Your task to perform on an android device: turn off airplane mode Image 0: 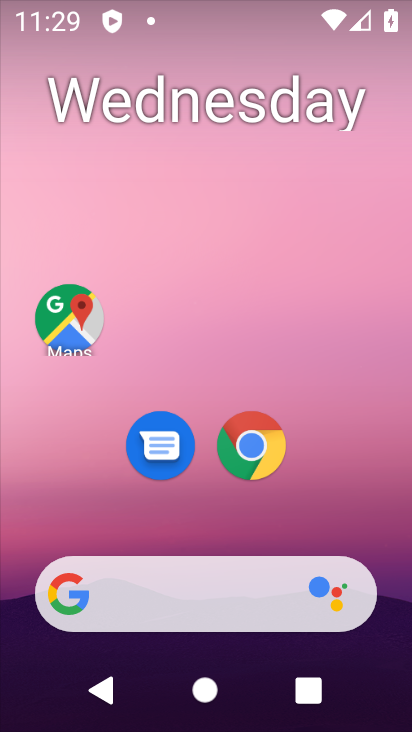
Step 0: drag from (280, 491) to (189, 189)
Your task to perform on an android device: turn off airplane mode Image 1: 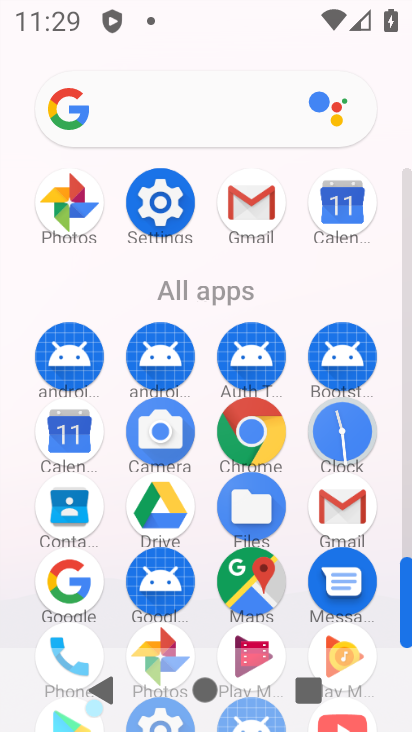
Step 1: click (175, 196)
Your task to perform on an android device: turn off airplane mode Image 2: 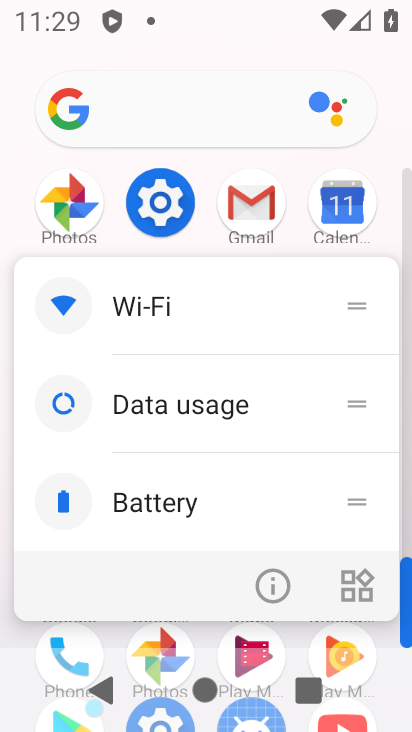
Step 2: click (155, 207)
Your task to perform on an android device: turn off airplane mode Image 3: 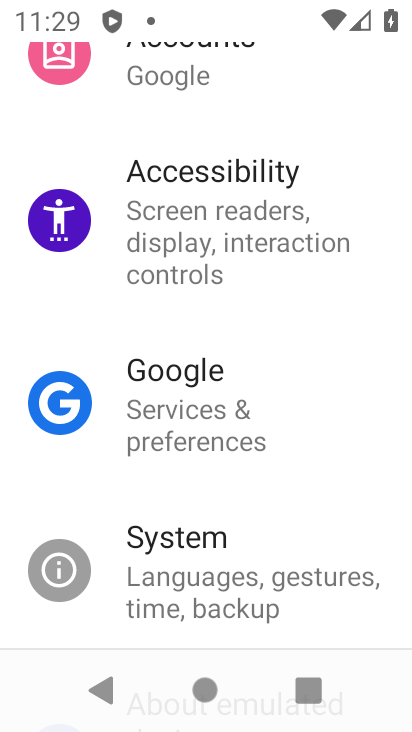
Step 3: drag from (303, 140) to (363, 486)
Your task to perform on an android device: turn off airplane mode Image 4: 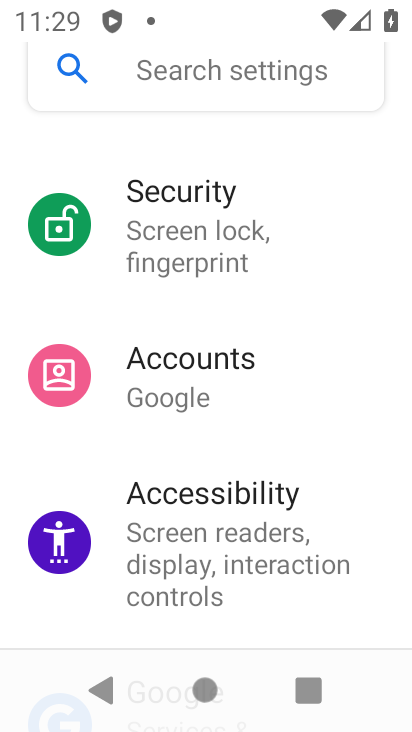
Step 4: drag from (318, 299) to (357, 564)
Your task to perform on an android device: turn off airplane mode Image 5: 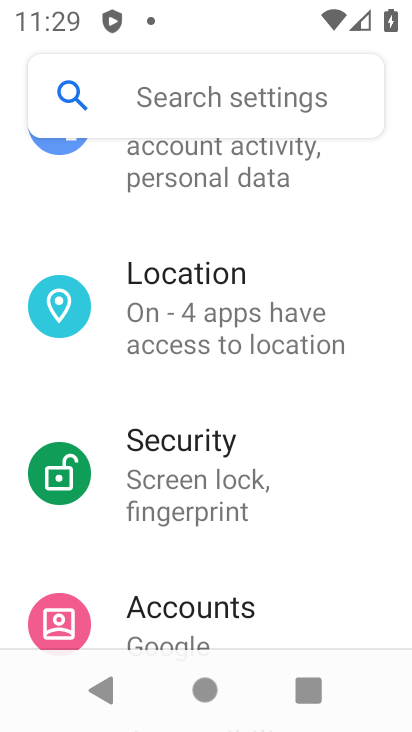
Step 5: drag from (312, 288) to (397, 535)
Your task to perform on an android device: turn off airplane mode Image 6: 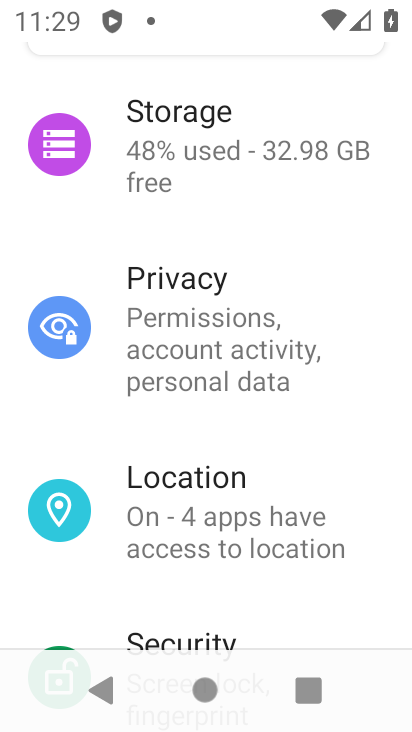
Step 6: drag from (295, 321) to (365, 526)
Your task to perform on an android device: turn off airplane mode Image 7: 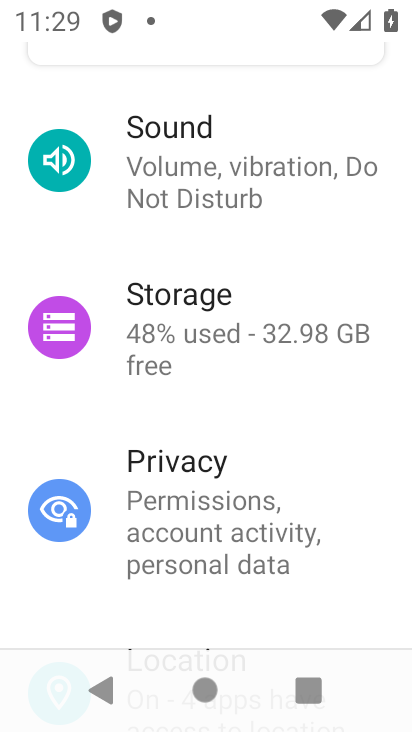
Step 7: drag from (260, 237) to (390, 548)
Your task to perform on an android device: turn off airplane mode Image 8: 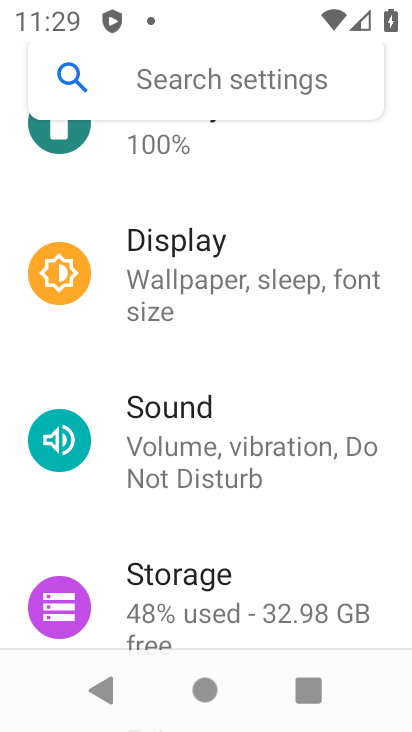
Step 8: drag from (300, 248) to (404, 570)
Your task to perform on an android device: turn off airplane mode Image 9: 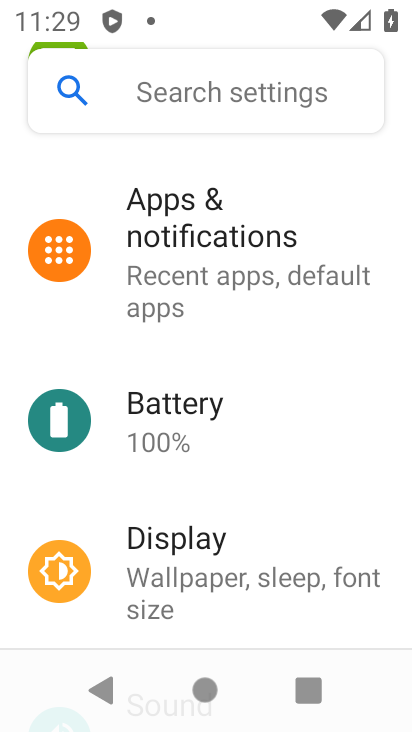
Step 9: click (360, 537)
Your task to perform on an android device: turn off airplane mode Image 10: 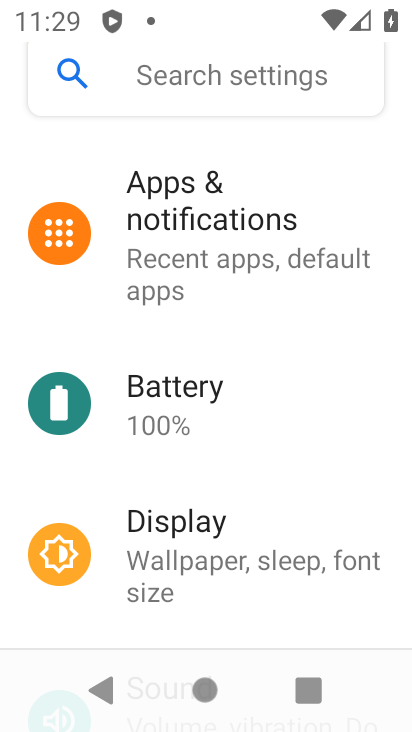
Step 10: drag from (272, 309) to (369, 527)
Your task to perform on an android device: turn off airplane mode Image 11: 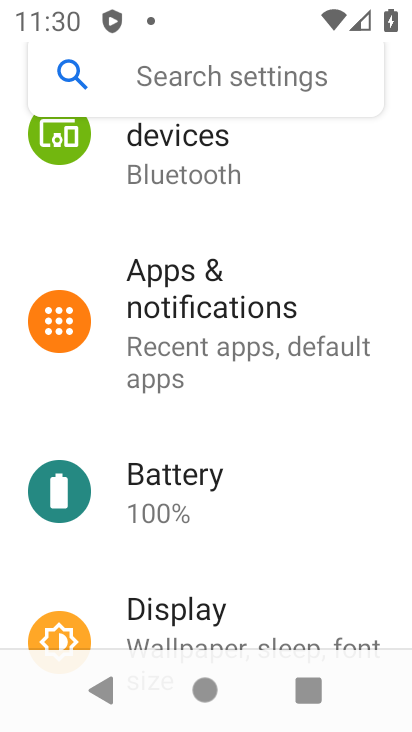
Step 11: drag from (280, 319) to (335, 543)
Your task to perform on an android device: turn off airplane mode Image 12: 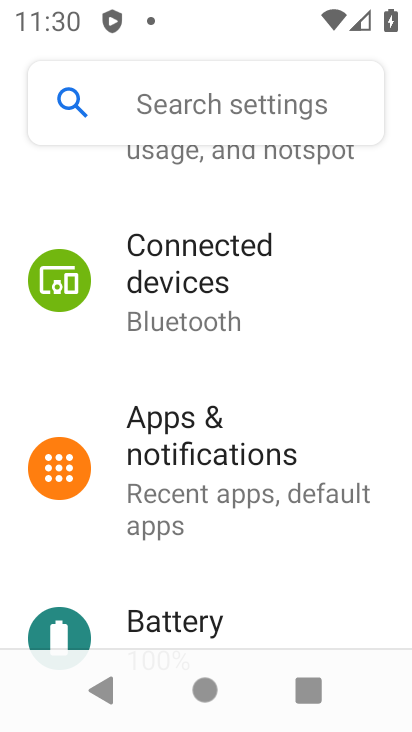
Step 12: drag from (277, 238) to (353, 541)
Your task to perform on an android device: turn off airplane mode Image 13: 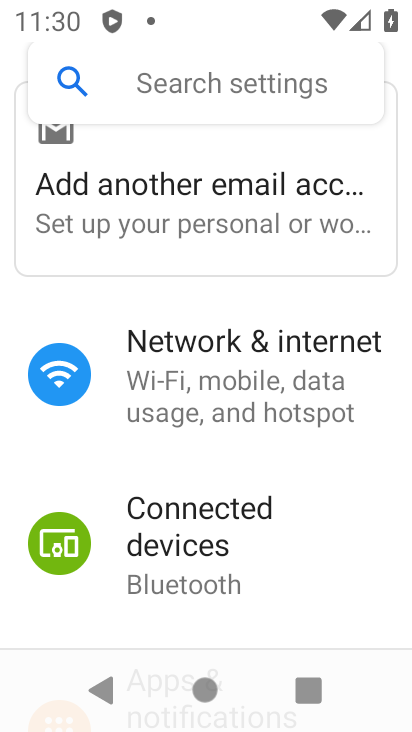
Step 13: drag from (309, 556) to (124, 175)
Your task to perform on an android device: turn off airplane mode Image 14: 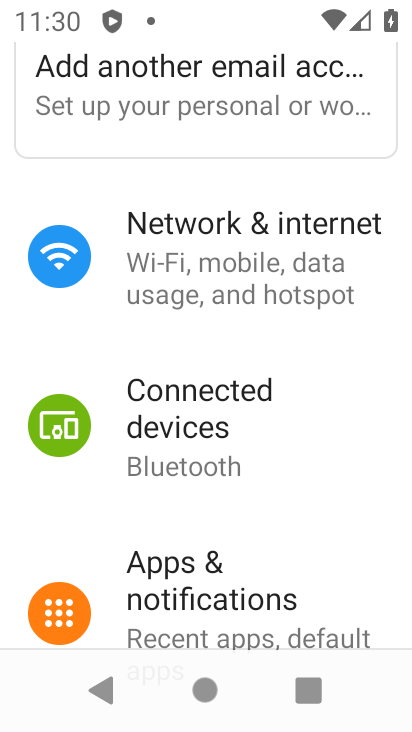
Step 14: drag from (305, 536) to (165, 170)
Your task to perform on an android device: turn off airplane mode Image 15: 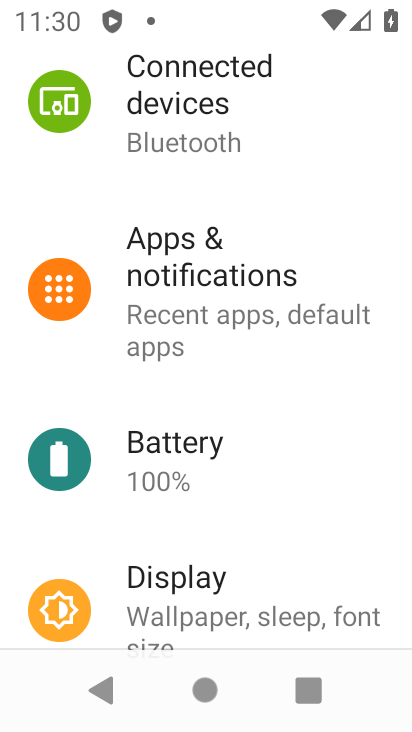
Step 15: drag from (297, 174) to (358, 497)
Your task to perform on an android device: turn off airplane mode Image 16: 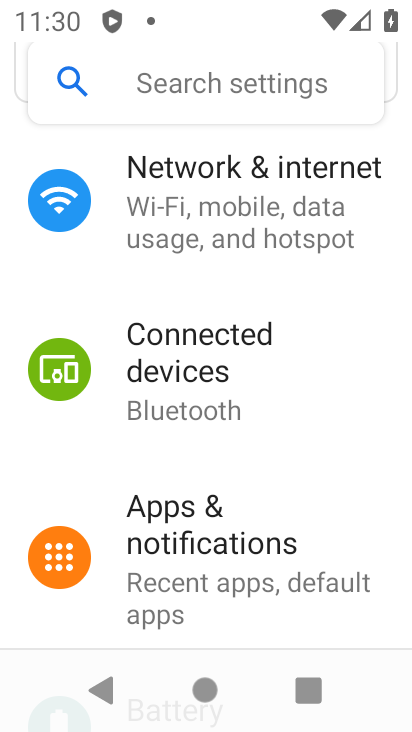
Step 16: drag from (353, 331) to (358, 541)
Your task to perform on an android device: turn off airplane mode Image 17: 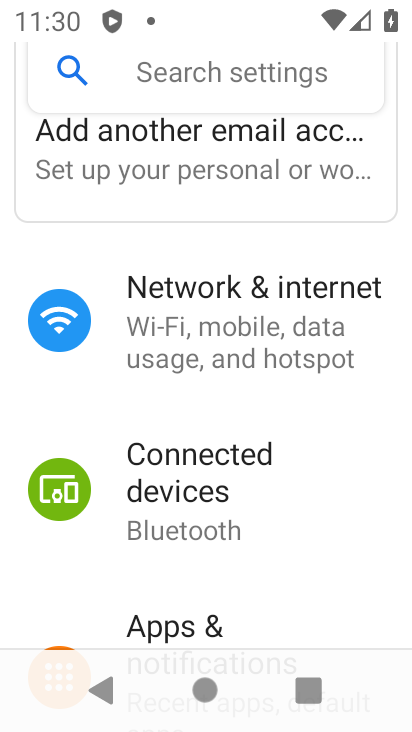
Step 17: click (192, 300)
Your task to perform on an android device: turn off airplane mode Image 18: 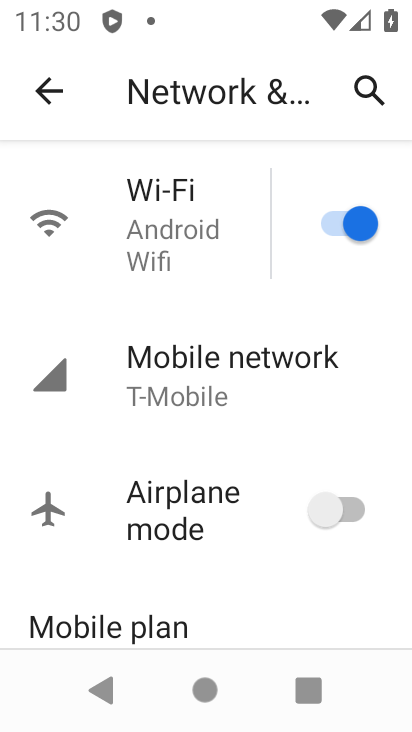
Step 18: task complete